Your task to perform on an android device: turn on airplane mode Image 0: 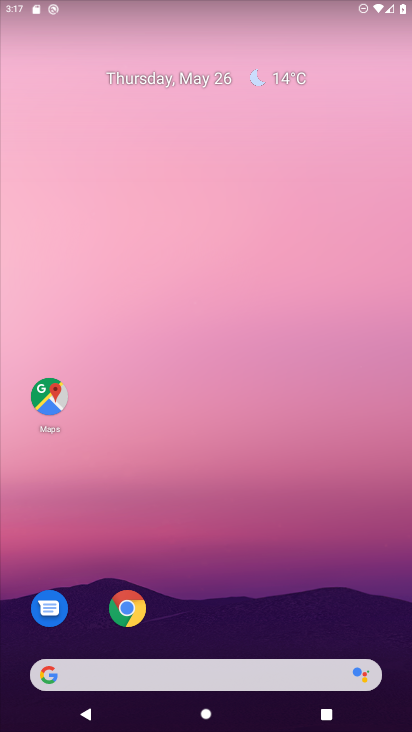
Step 0: drag from (276, 438) to (230, 14)
Your task to perform on an android device: turn on airplane mode Image 1: 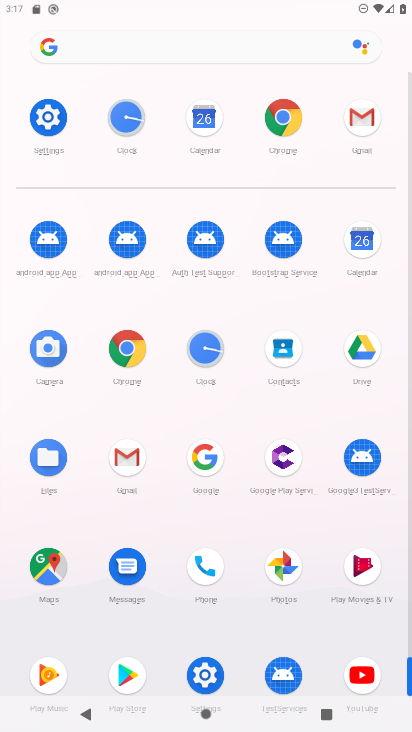
Step 1: click (43, 131)
Your task to perform on an android device: turn on airplane mode Image 2: 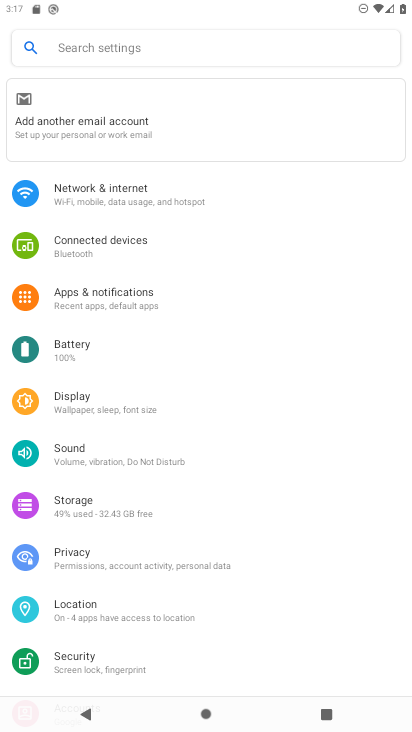
Step 2: click (101, 206)
Your task to perform on an android device: turn on airplane mode Image 3: 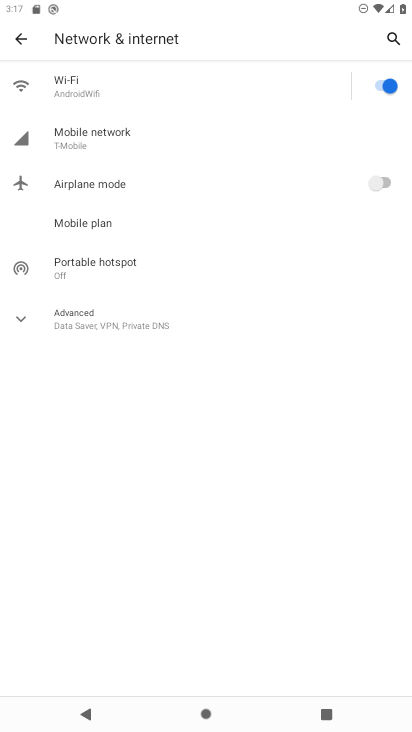
Step 3: click (371, 181)
Your task to perform on an android device: turn on airplane mode Image 4: 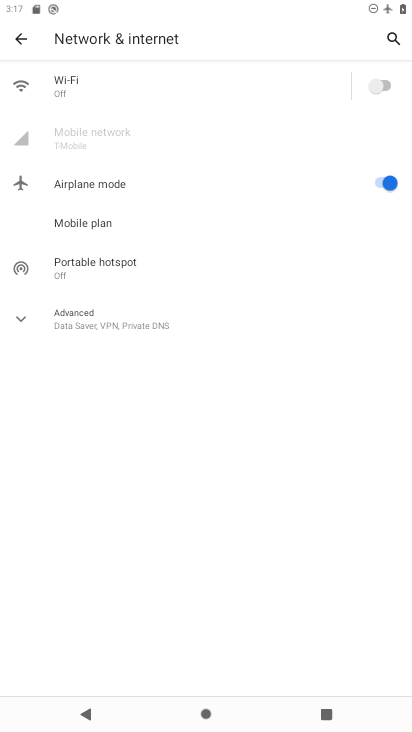
Step 4: task complete